Your task to perform on an android device: turn on translation in the chrome app Image 0: 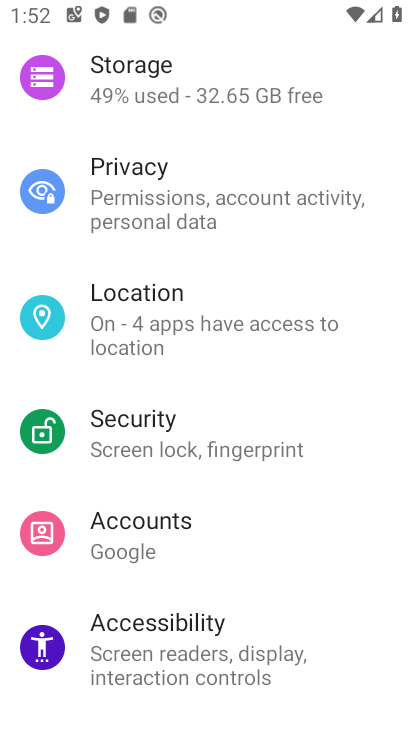
Step 0: press home button
Your task to perform on an android device: turn on translation in the chrome app Image 1: 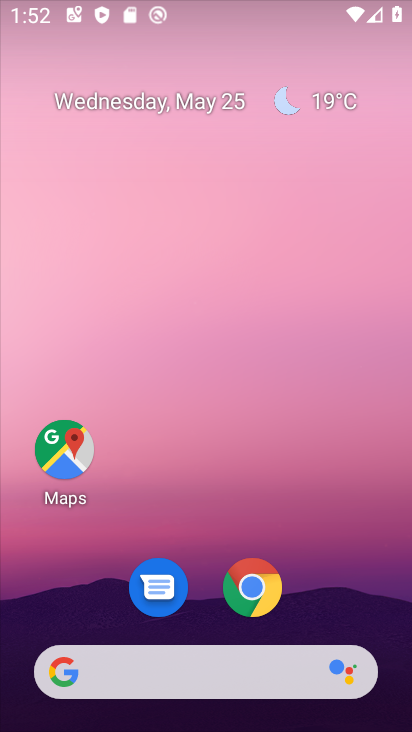
Step 1: click (252, 588)
Your task to perform on an android device: turn on translation in the chrome app Image 2: 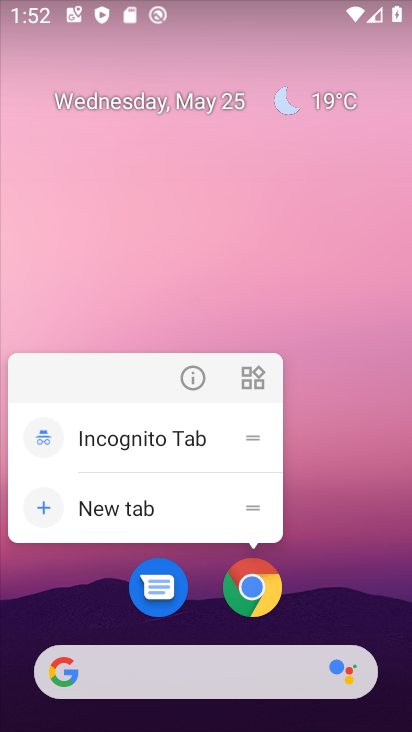
Step 2: click (253, 598)
Your task to perform on an android device: turn on translation in the chrome app Image 3: 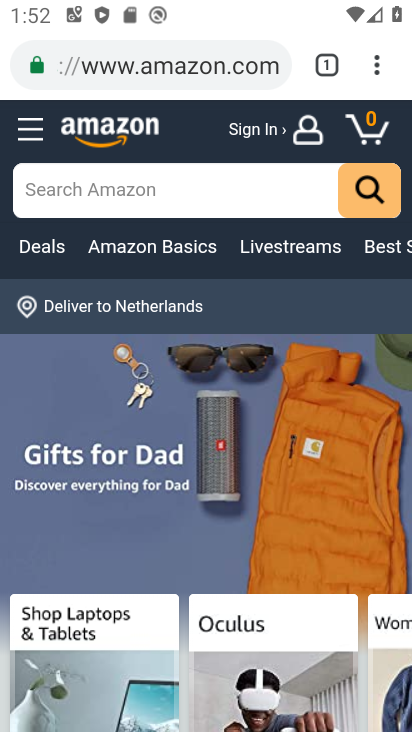
Step 3: click (371, 65)
Your task to perform on an android device: turn on translation in the chrome app Image 4: 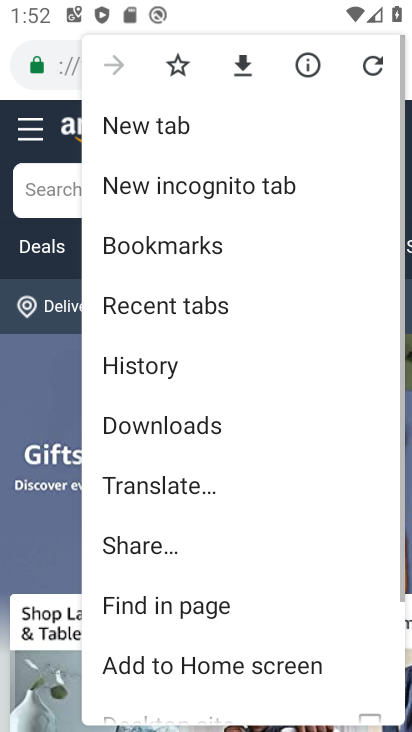
Step 4: drag from (236, 595) to (226, 127)
Your task to perform on an android device: turn on translation in the chrome app Image 5: 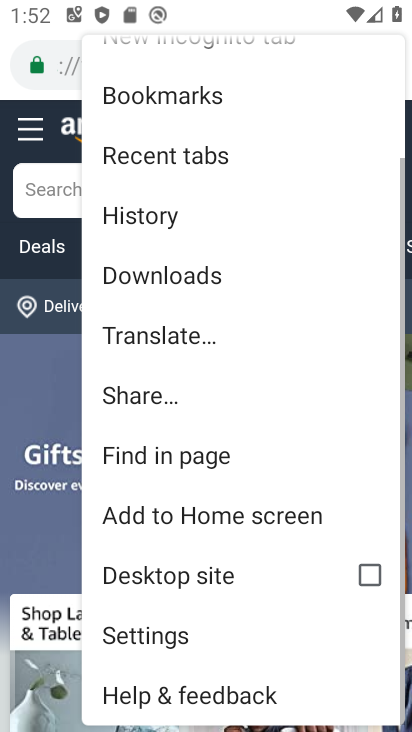
Step 5: click (128, 641)
Your task to perform on an android device: turn on translation in the chrome app Image 6: 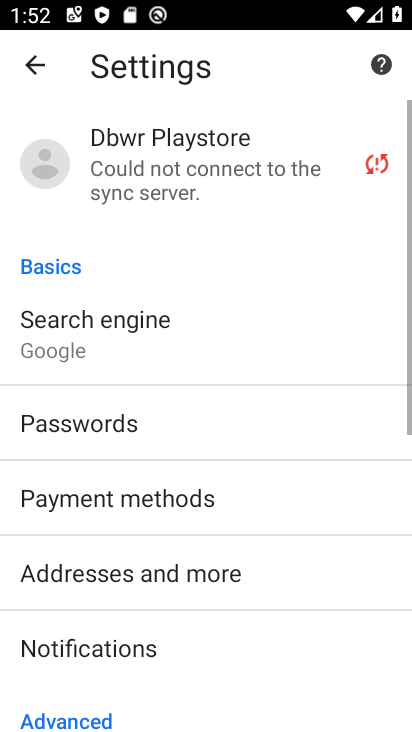
Step 6: drag from (230, 635) to (235, 51)
Your task to perform on an android device: turn on translation in the chrome app Image 7: 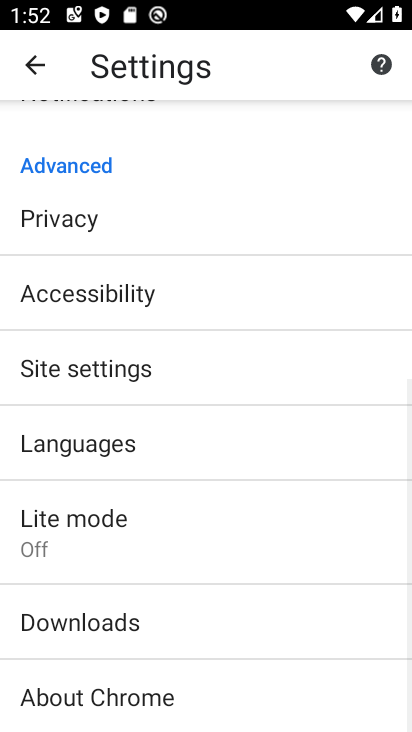
Step 7: click (86, 450)
Your task to perform on an android device: turn on translation in the chrome app Image 8: 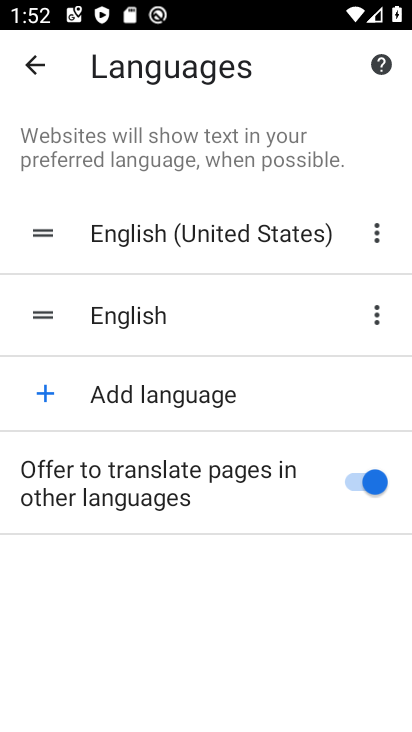
Step 8: task complete